Your task to perform on an android device: turn pop-ups off in chrome Image 0: 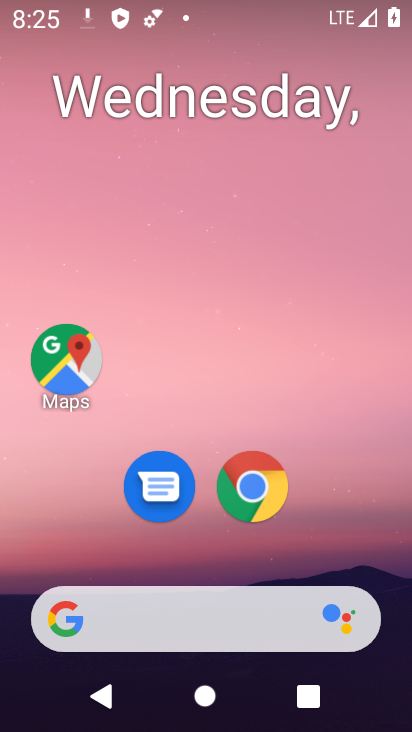
Step 0: click (247, 494)
Your task to perform on an android device: turn pop-ups off in chrome Image 1: 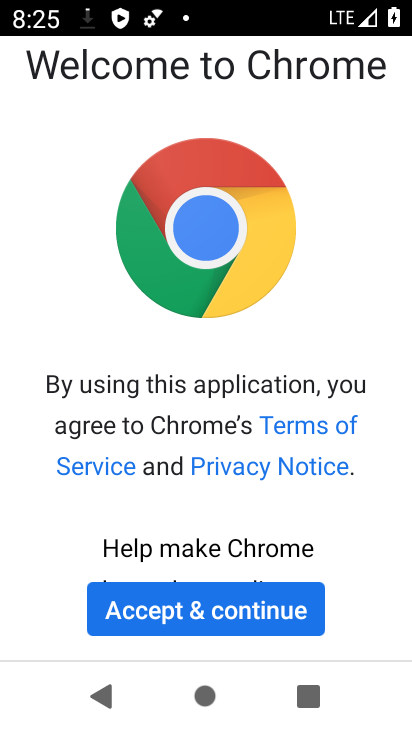
Step 1: click (152, 610)
Your task to perform on an android device: turn pop-ups off in chrome Image 2: 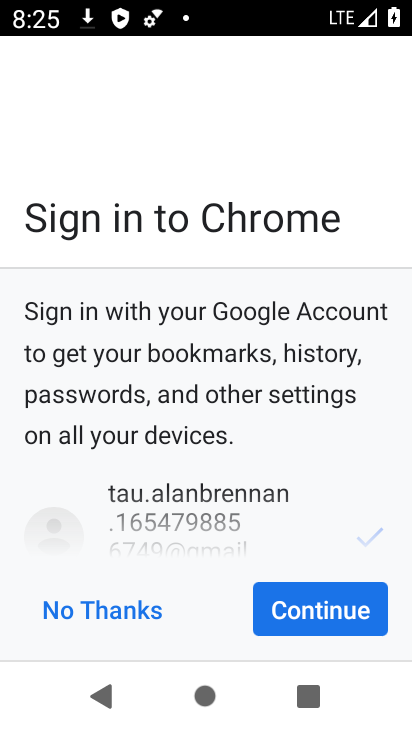
Step 2: click (283, 602)
Your task to perform on an android device: turn pop-ups off in chrome Image 3: 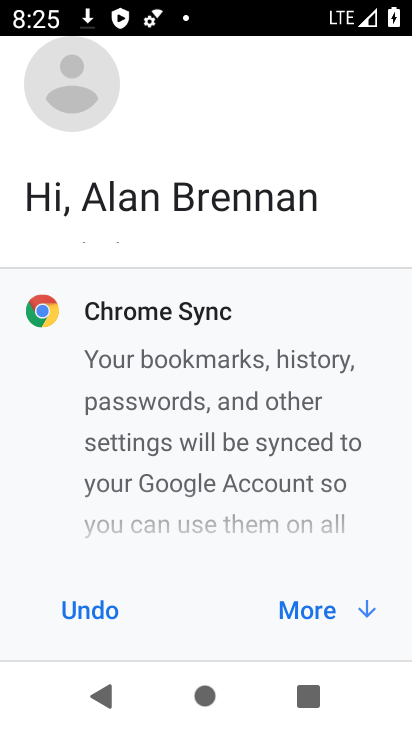
Step 3: click (294, 610)
Your task to perform on an android device: turn pop-ups off in chrome Image 4: 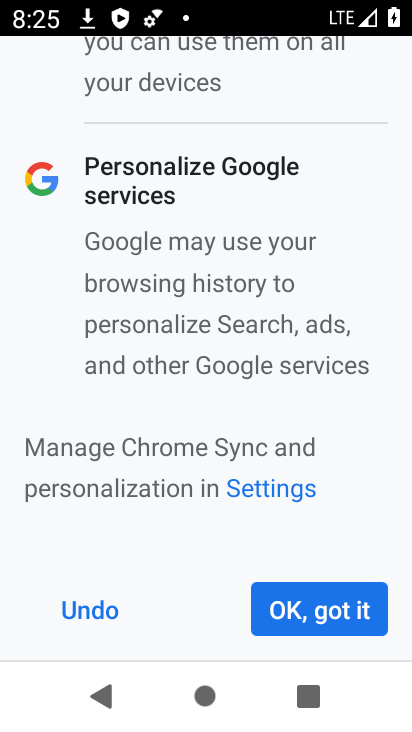
Step 4: click (294, 610)
Your task to perform on an android device: turn pop-ups off in chrome Image 5: 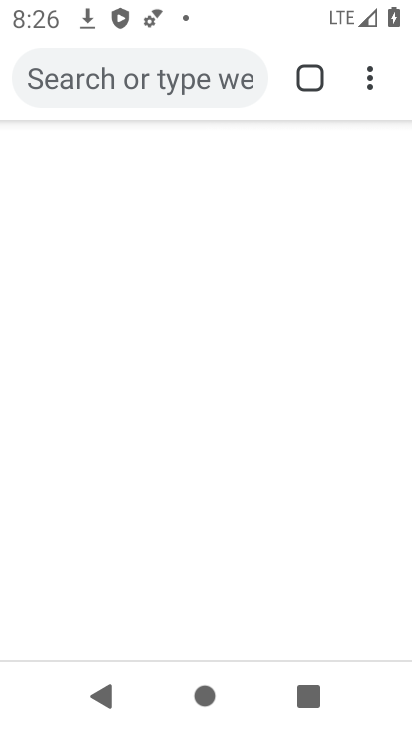
Step 5: drag from (368, 76) to (101, 550)
Your task to perform on an android device: turn pop-ups off in chrome Image 6: 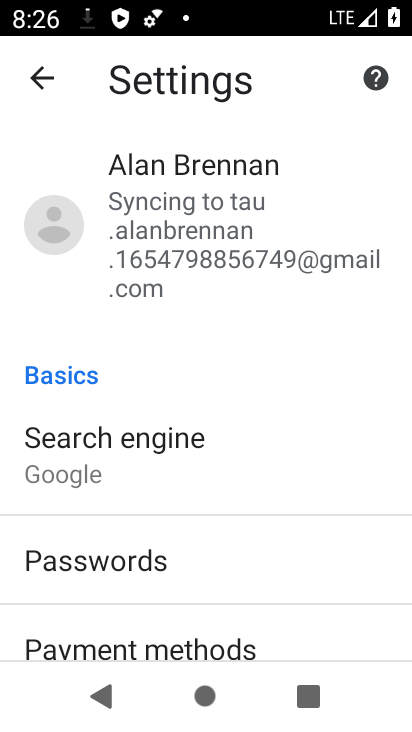
Step 6: drag from (120, 618) to (228, 69)
Your task to perform on an android device: turn pop-ups off in chrome Image 7: 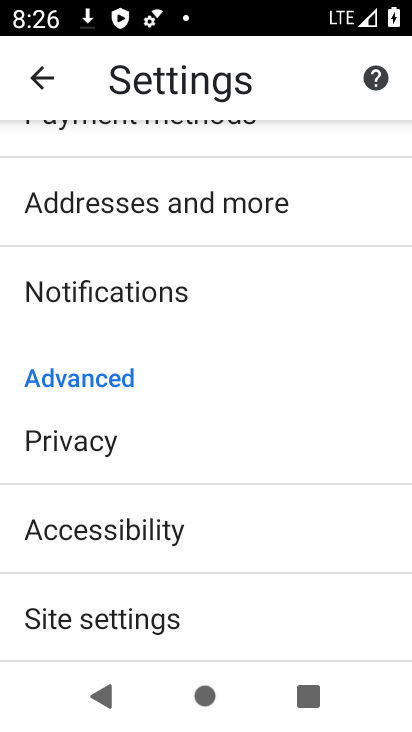
Step 7: click (142, 607)
Your task to perform on an android device: turn pop-ups off in chrome Image 8: 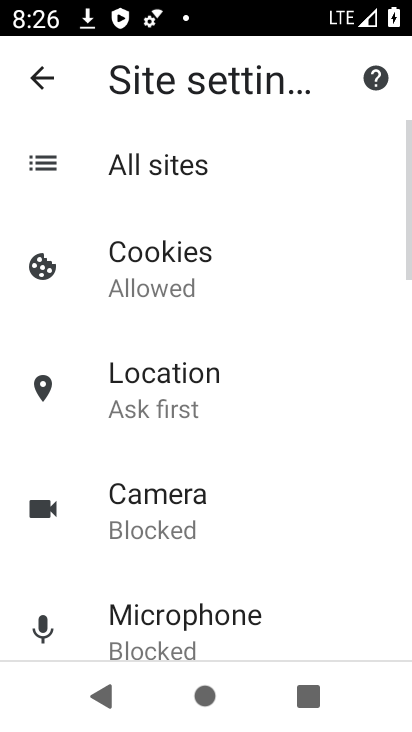
Step 8: drag from (191, 590) to (256, 222)
Your task to perform on an android device: turn pop-ups off in chrome Image 9: 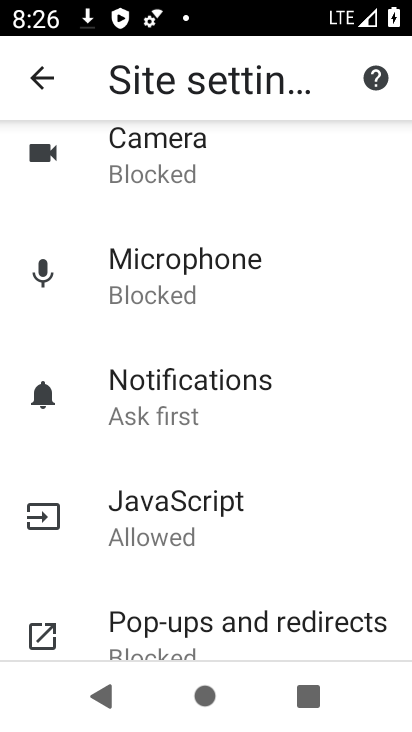
Step 9: click (193, 649)
Your task to perform on an android device: turn pop-ups off in chrome Image 10: 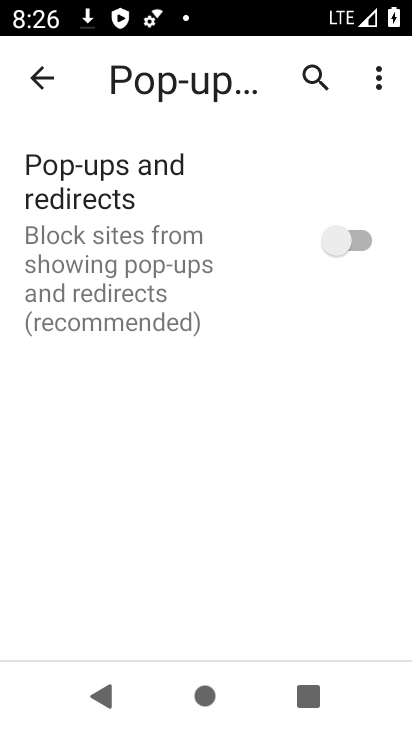
Step 10: task complete